Your task to perform on an android device: Open settings on Google Maps Image 0: 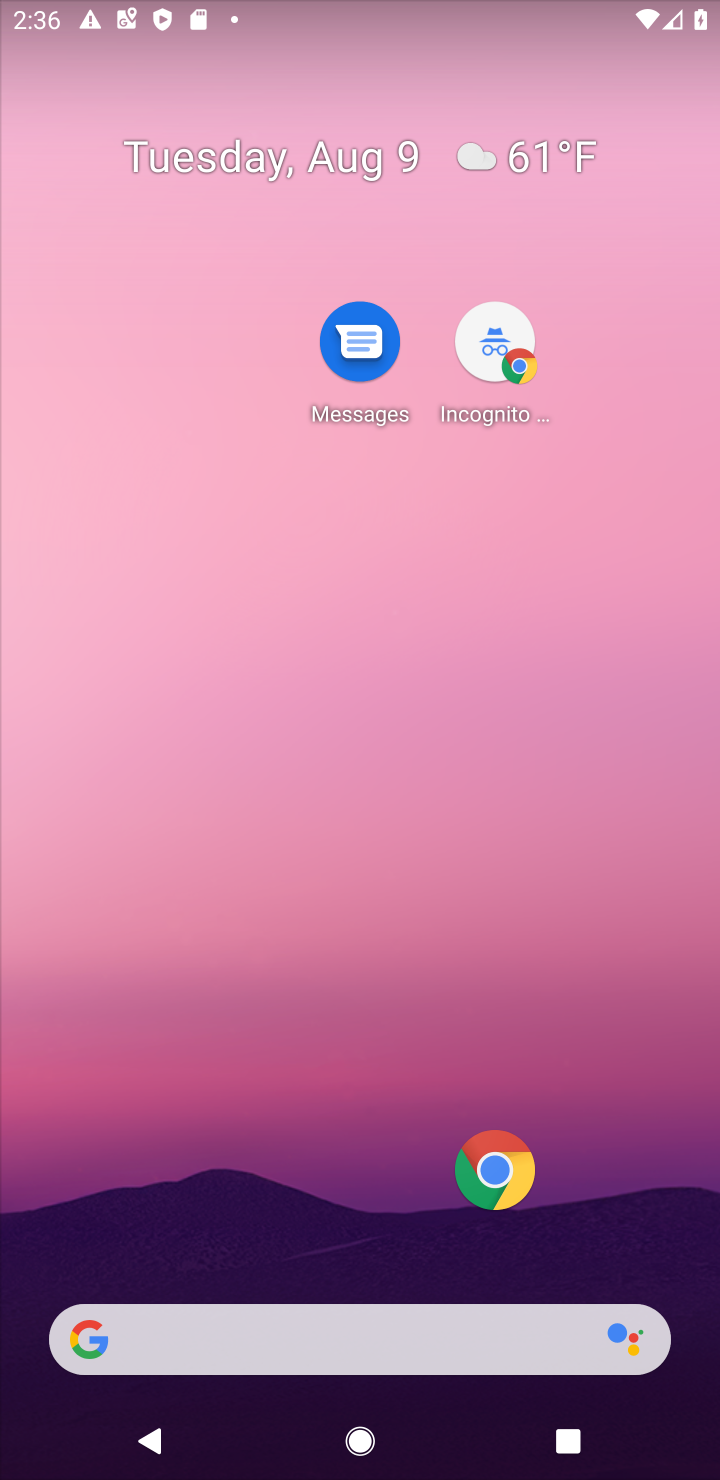
Step 0: drag from (333, 870) to (225, 41)
Your task to perform on an android device: Open settings on Google Maps Image 1: 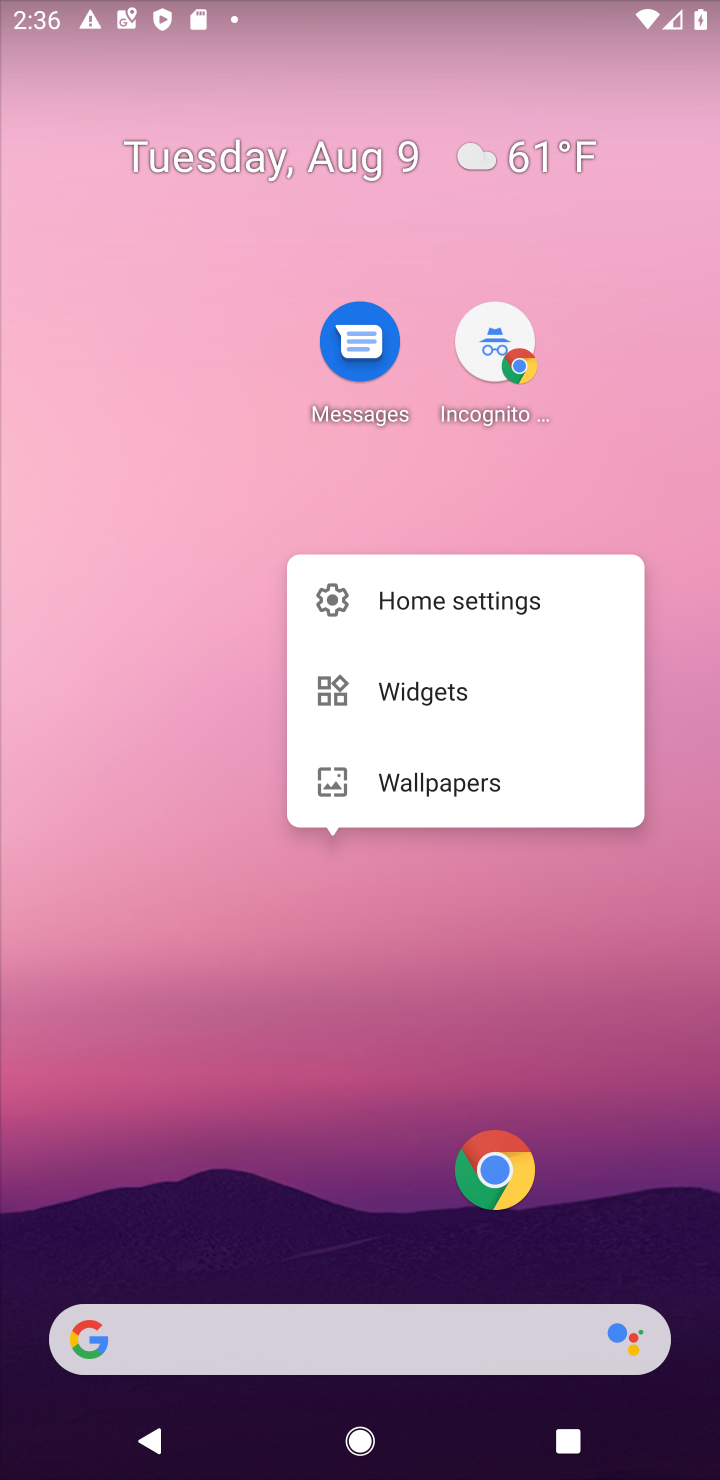
Step 1: click (265, 1119)
Your task to perform on an android device: Open settings on Google Maps Image 2: 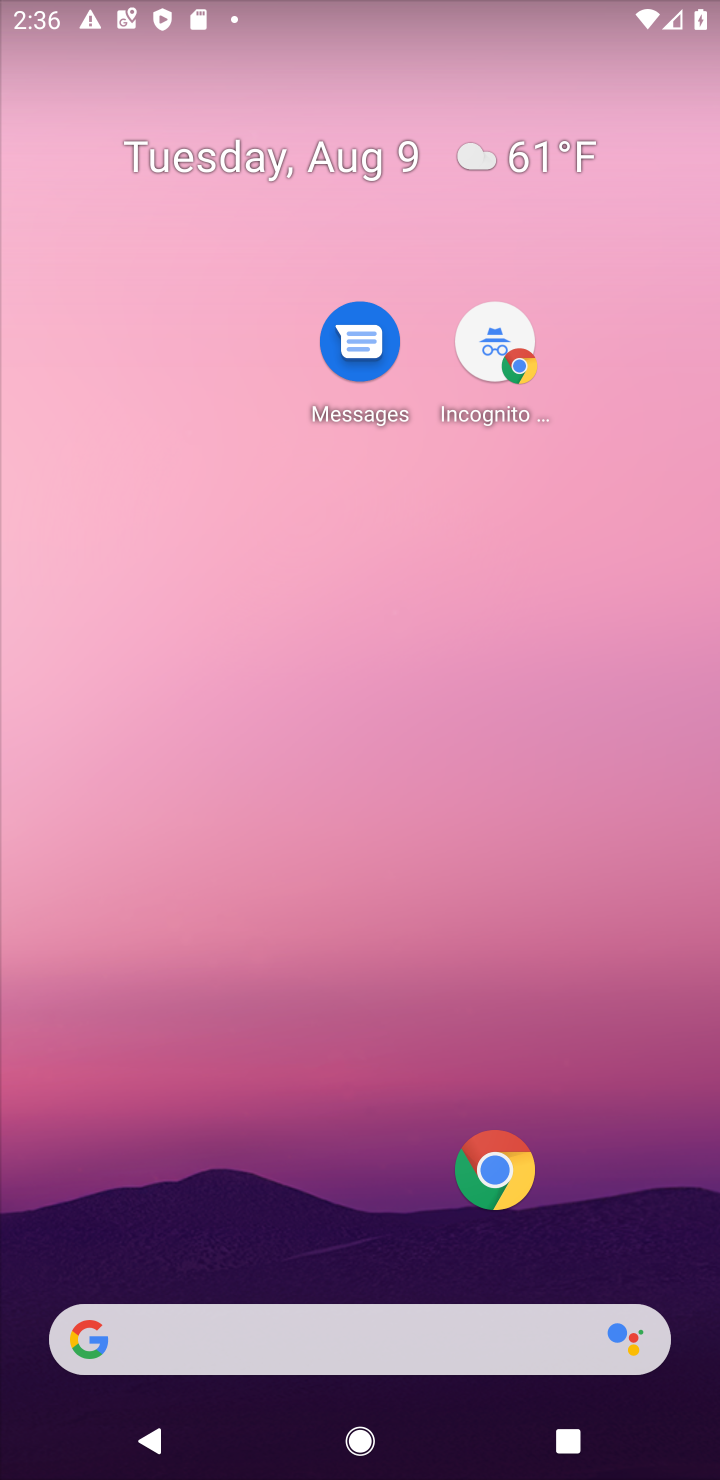
Step 2: drag from (238, 814) to (213, 36)
Your task to perform on an android device: Open settings on Google Maps Image 3: 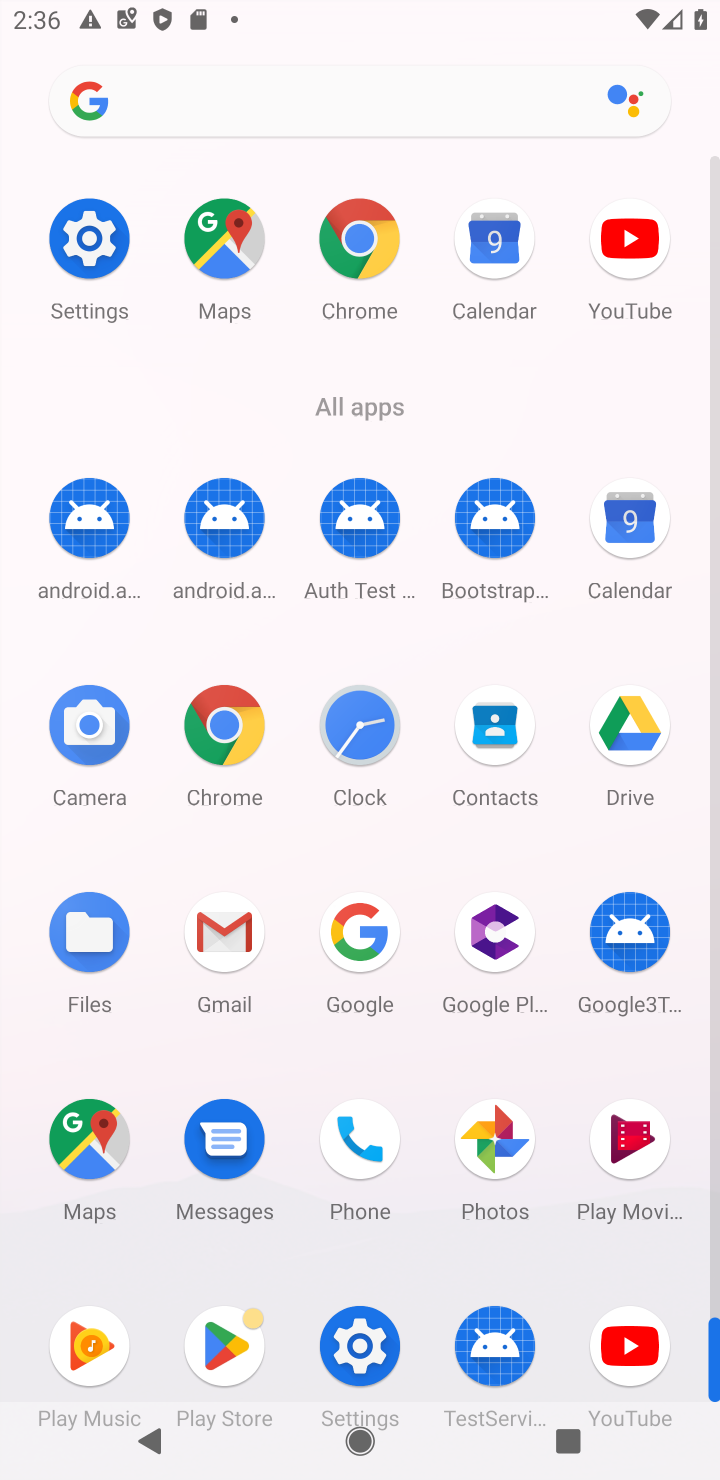
Step 3: click (355, 1332)
Your task to perform on an android device: Open settings on Google Maps Image 4: 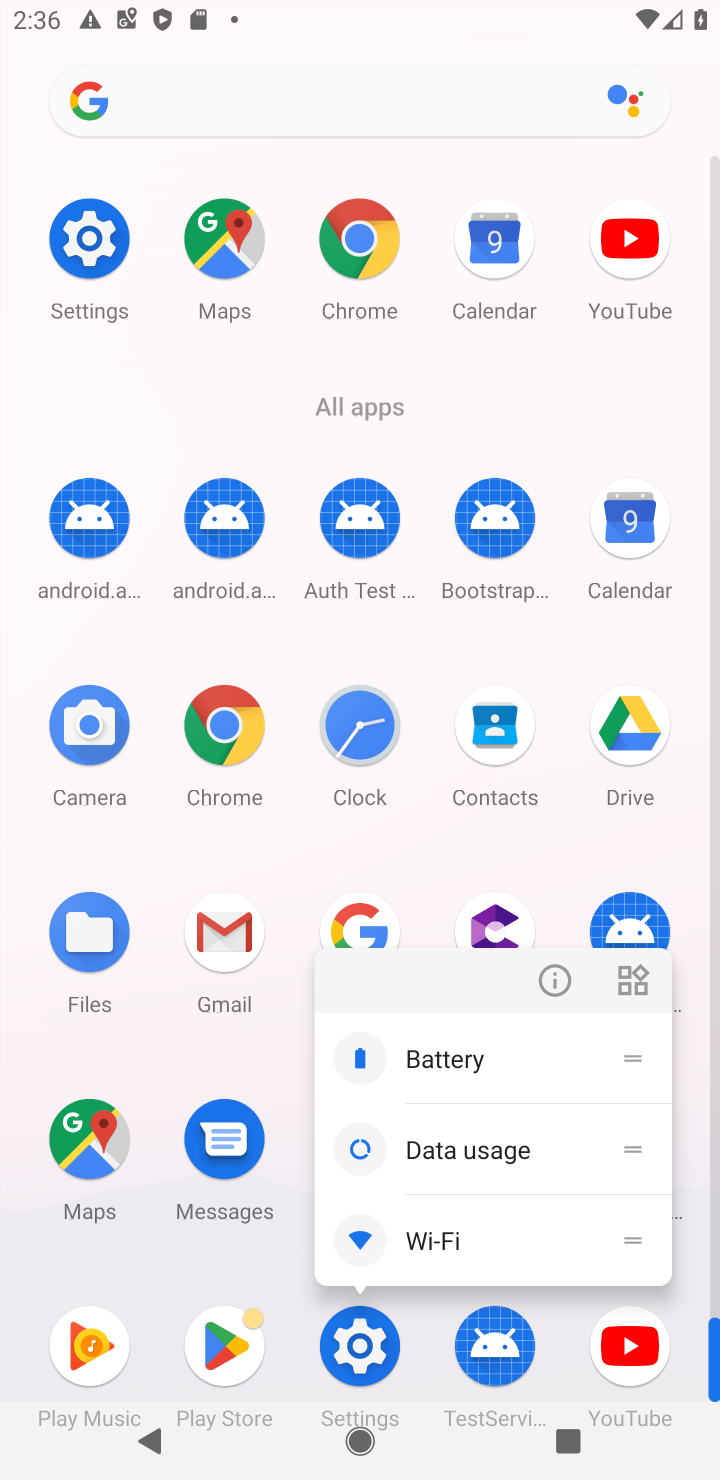
Step 4: click (363, 1348)
Your task to perform on an android device: Open settings on Google Maps Image 5: 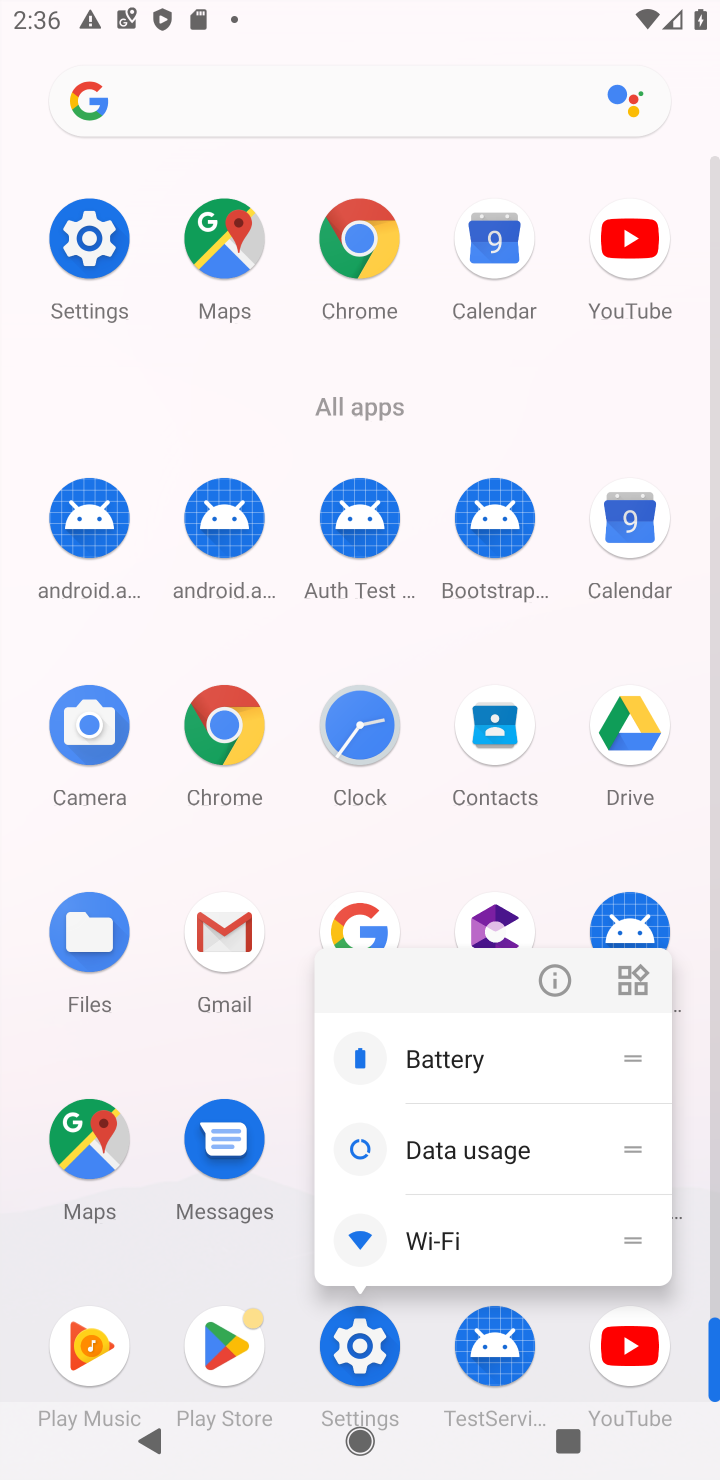
Step 5: click (100, 1173)
Your task to perform on an android device: Open settings on Google Maps Image 6: 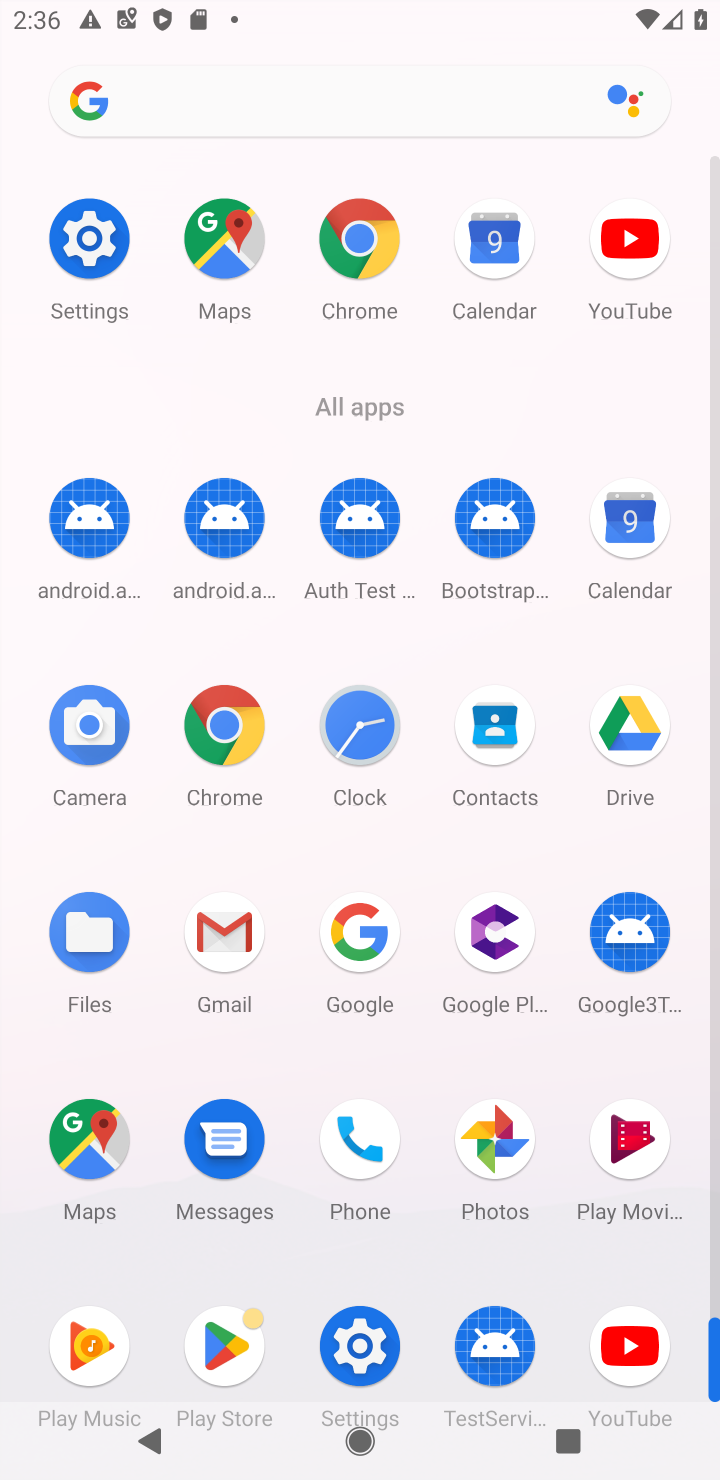
Step 6: click (88, 1159)
Your task to perform on an android device: Open settings on Google Maps Image 7: 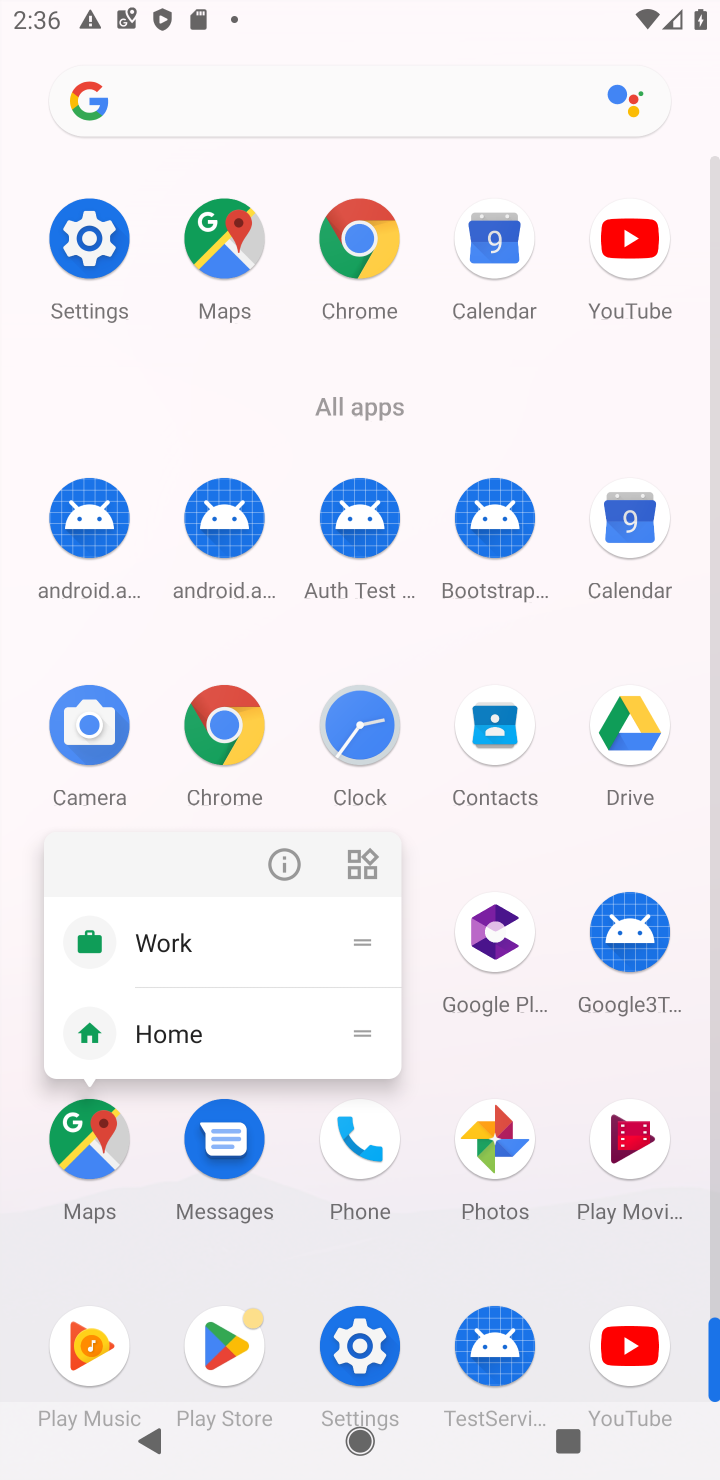
Step 7: click (84, 1157)
Your task to perform on an android device: Open settings on Google Maps Image 8: 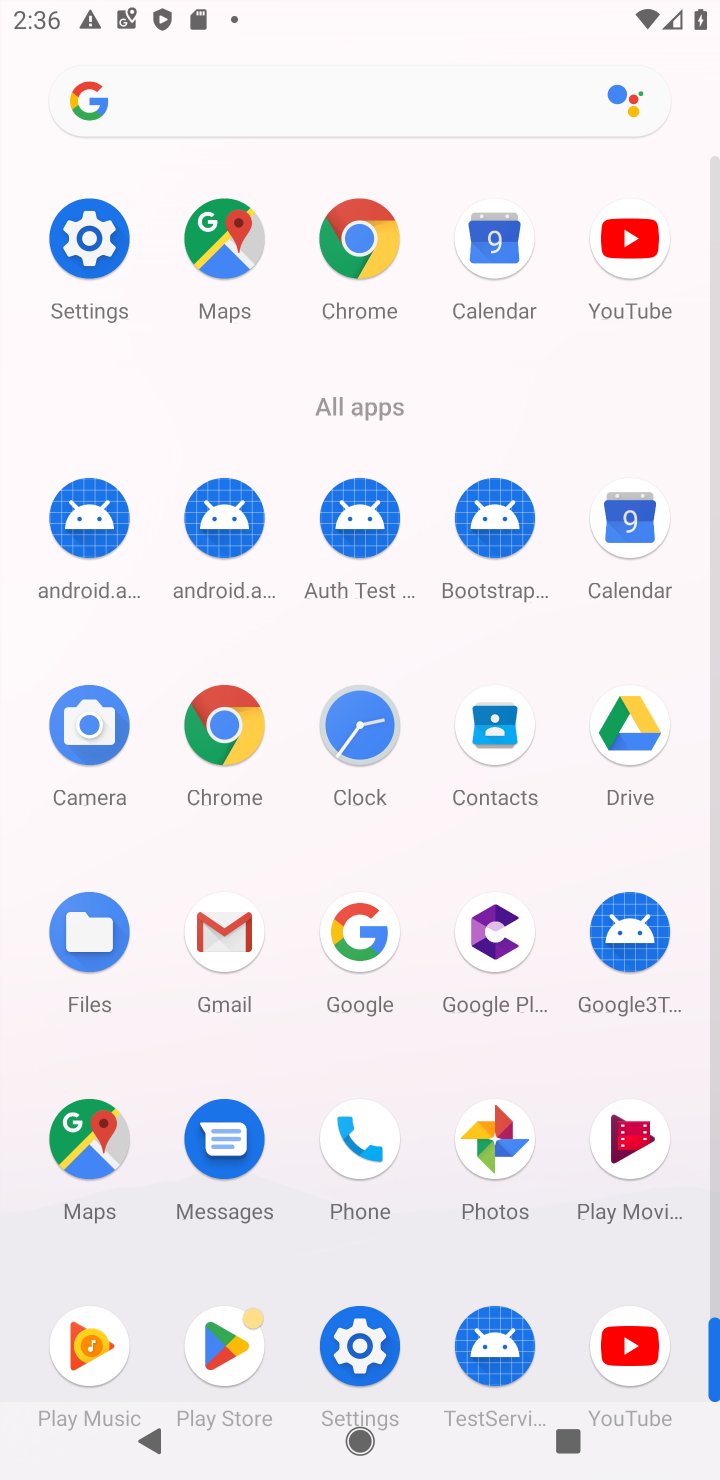
Step 8: click (84, 1157)
Your task to perform on an android device: Open settings on Google Maps Image 9: 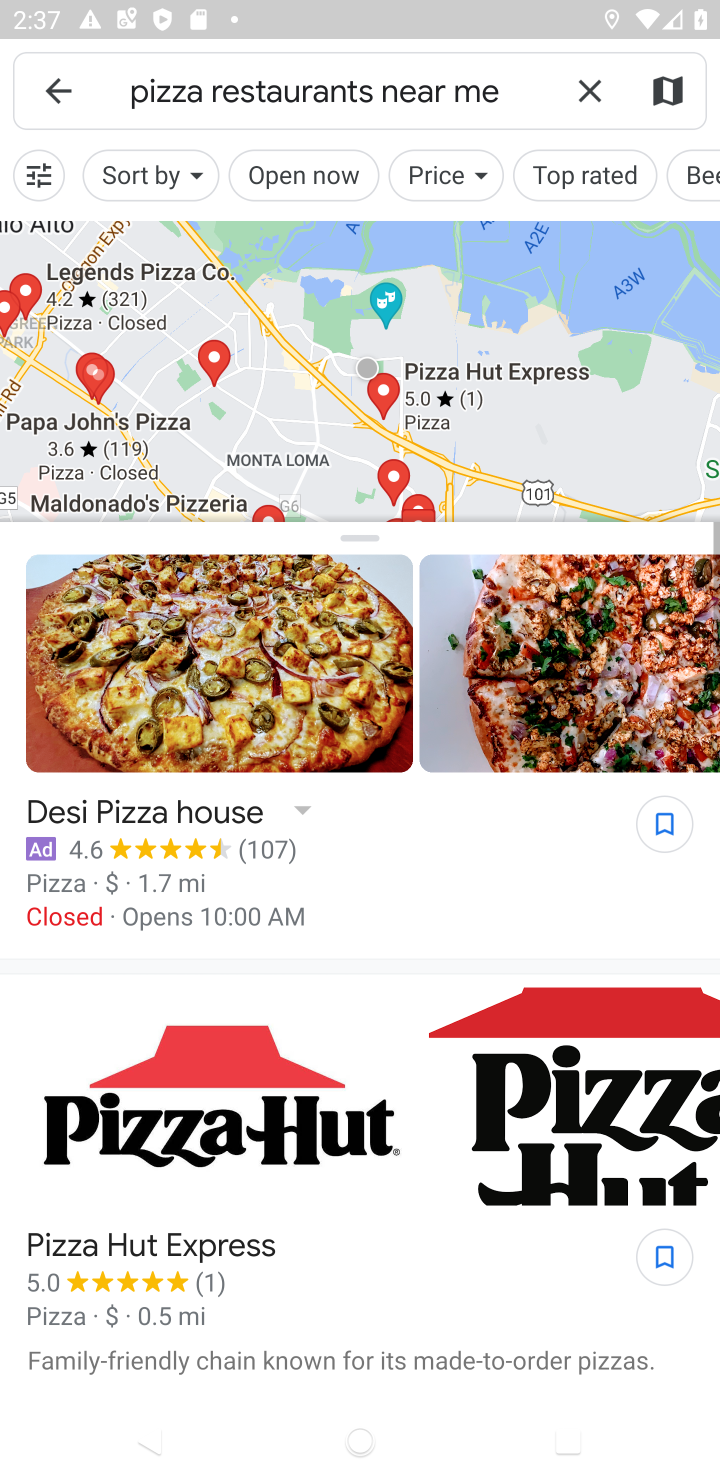
Step 9: click (47, 70)
Your task to perform on an android device: Open settings on Google Maps Image 10: 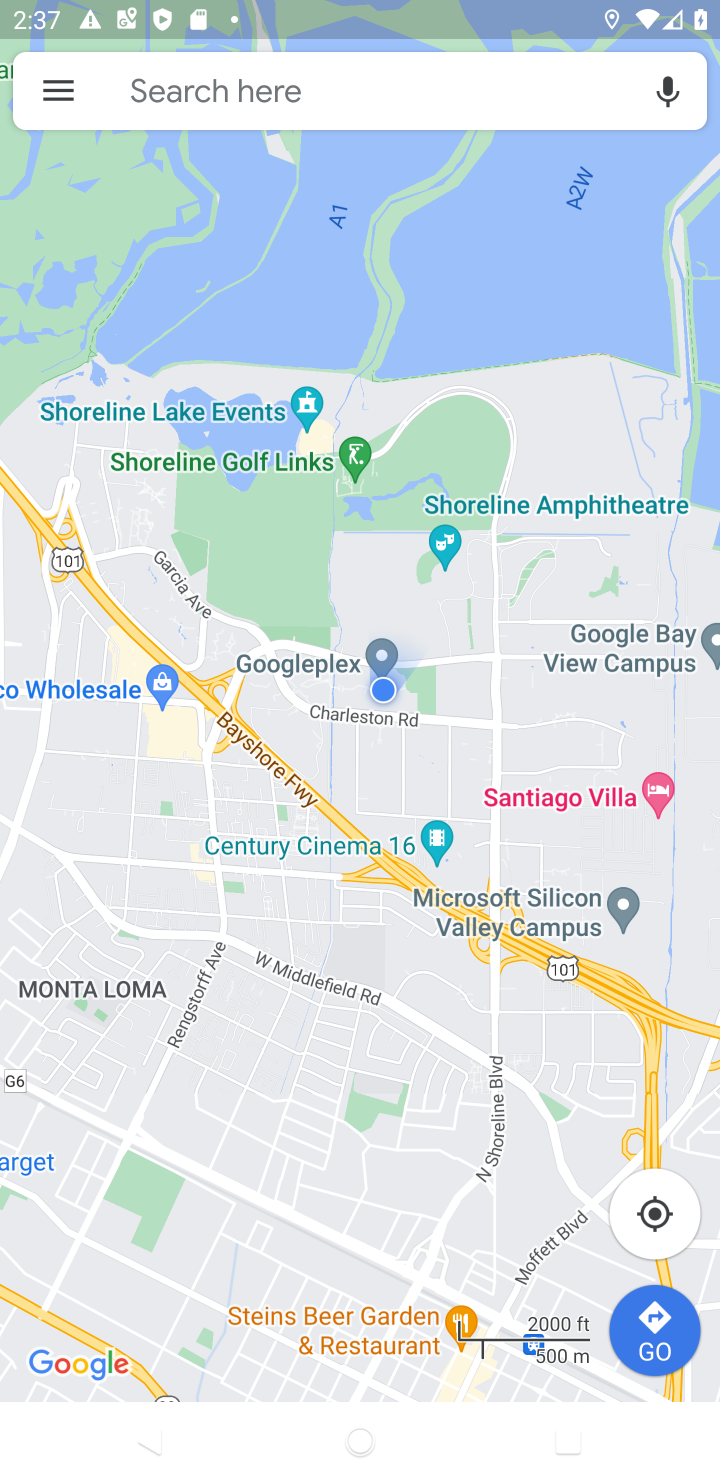
Step 10: click (54, 98)
Your task to perform on an android device: Open settings on Google Maps Image 11: 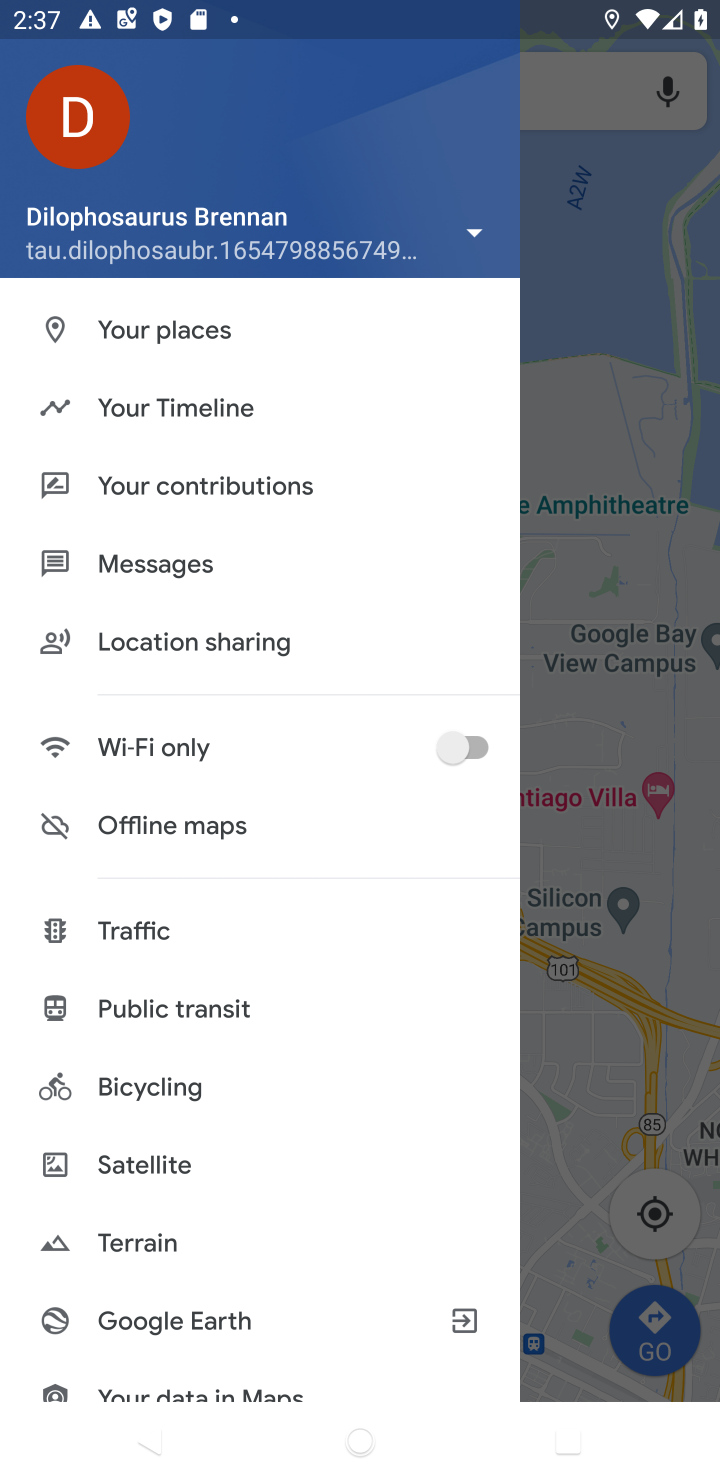
Step 11: drag from (188, 1302) to (197, 38)
Your task to perform on an android device: Open settings on Google Maps Image 12: 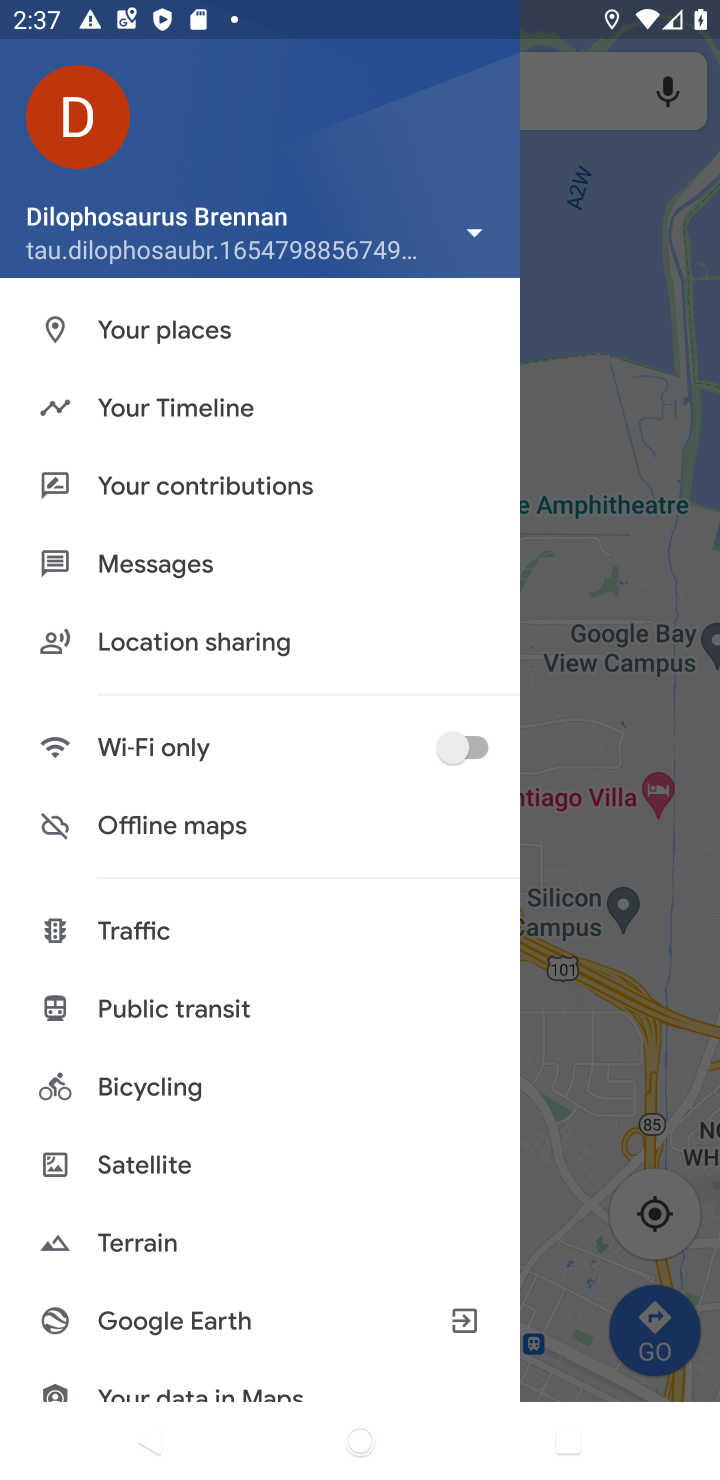
Step 12: drag from (219, 1201) to (217, 130)
Your task to perform on an android device: Open settings on Google Maps Image 13: 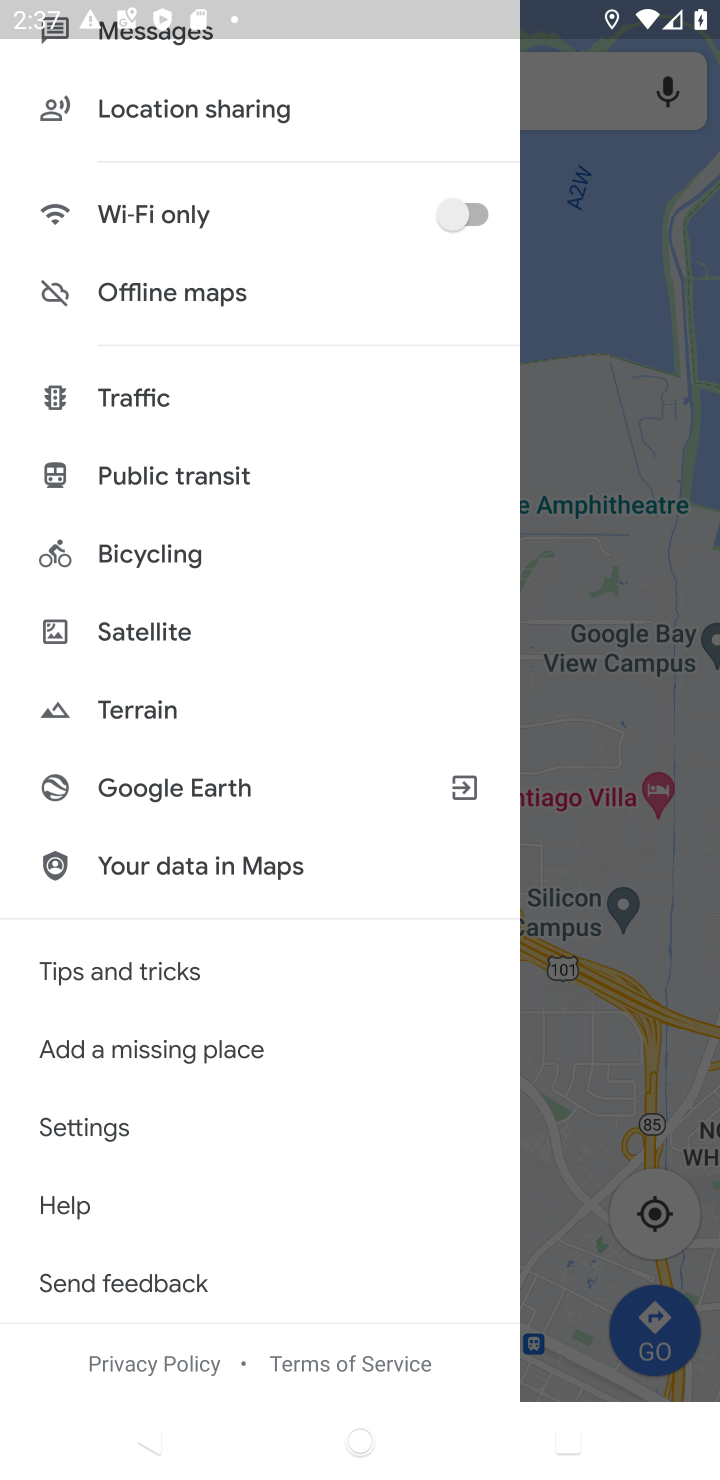
Step 13: click (122, 1107)
Your task to perform on an android device: Open settings on Google Maps Image 14: 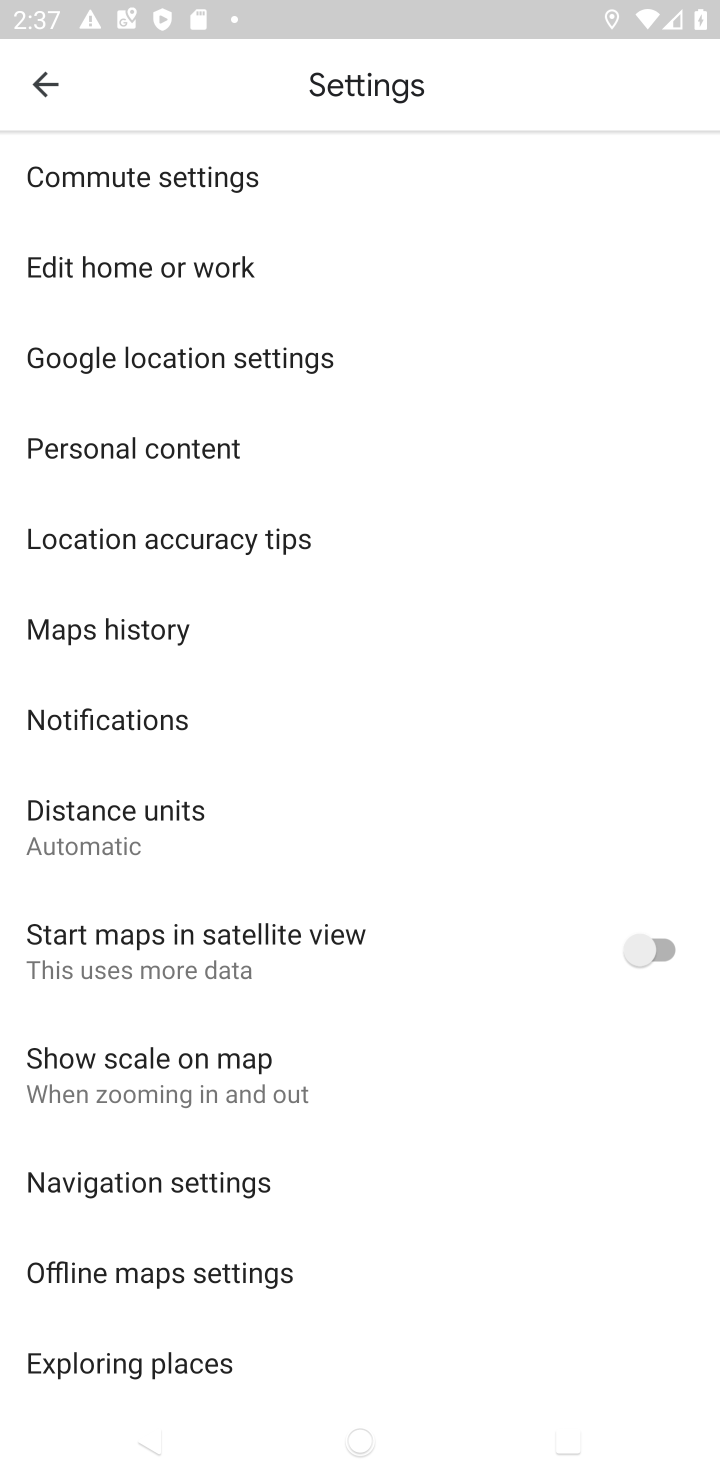
Step 14: task complete